Your task to perform on an android device: turn off picture-in-picture Image 0: 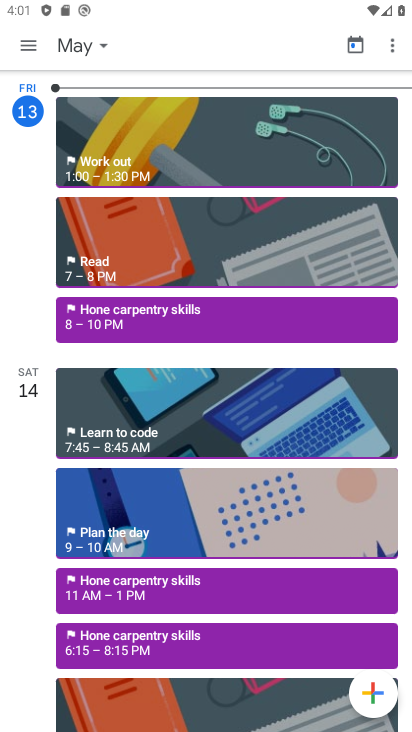
Step 0: press home button
Your task to perform on an android device: turn off picture-in-picture Image 1: 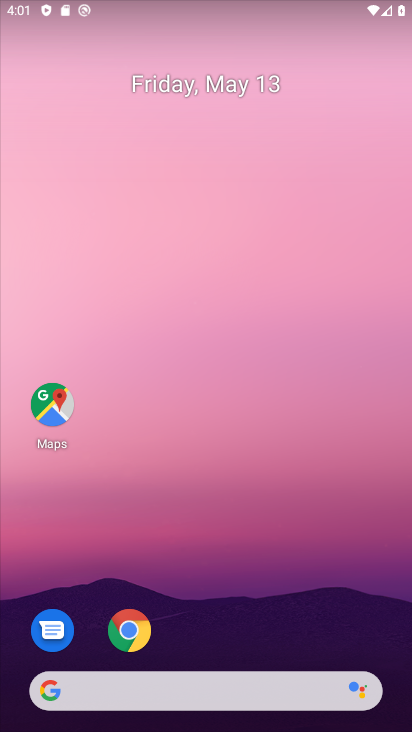
Step 1: drag from (212, 725) to (208, 221)
Your task to perform on an android device: turn off picture-in-picture Image 2: 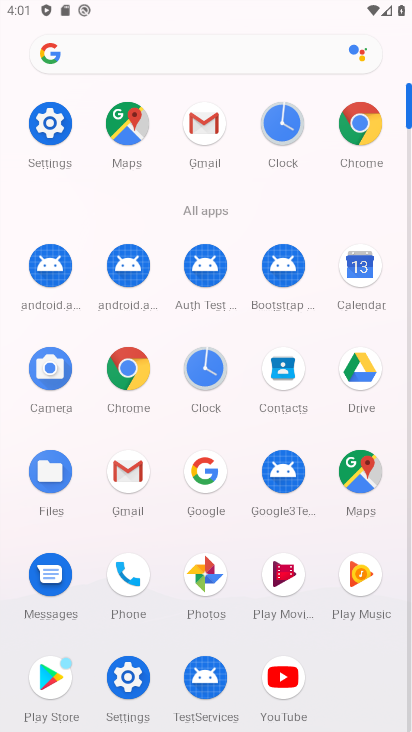
Step 2: click (51, 125)
Your task to perform on an android device: turn off picture-in-picture Image 3: 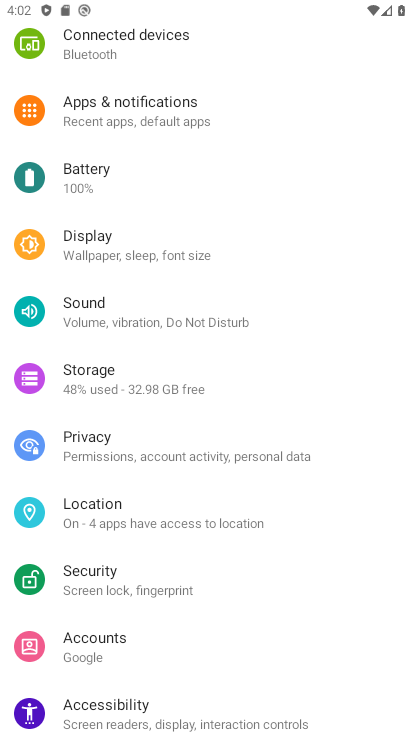
Step 3: click (144, 664)
Your task to perform on an android device: turn off picture-in-picture Image 4: 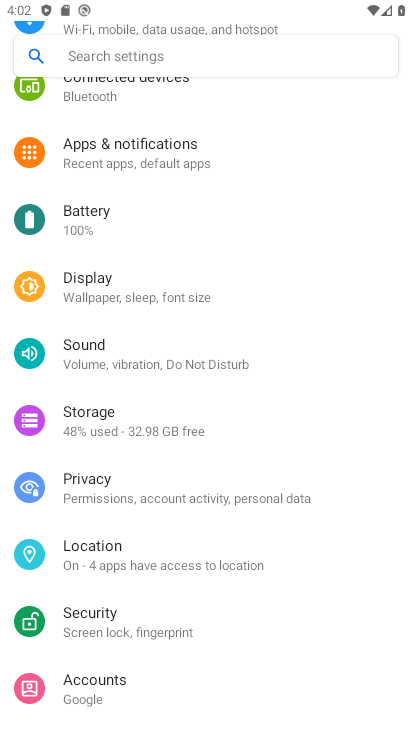
Step 4: drag from (202, 166) to (197, 595)
Your task to perform on an android device: turn off picture-in-picture Image 5: 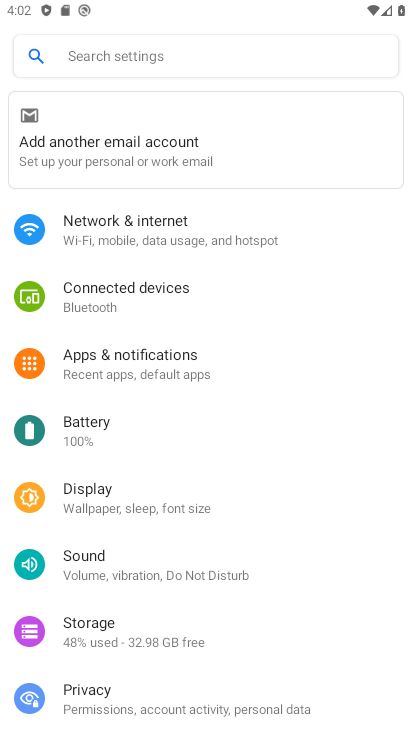
Step 5: click (137, 356)
Your task to perform on an android device: turn off picture-in-picture Image 6: 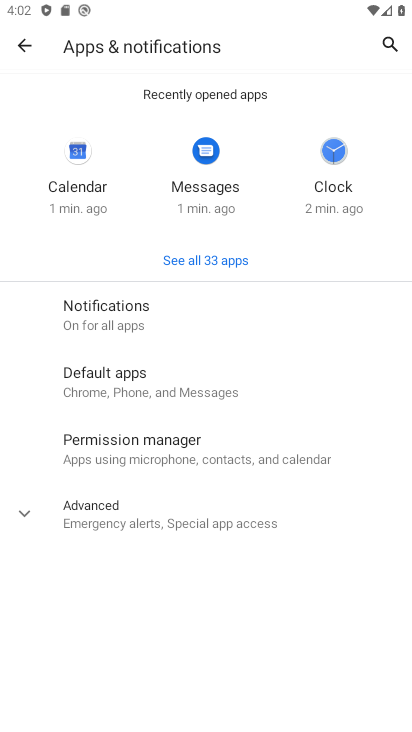
Step 6: click (75, 512)
Your task to perform on an android device: turn off picture-in-picture Image 7: 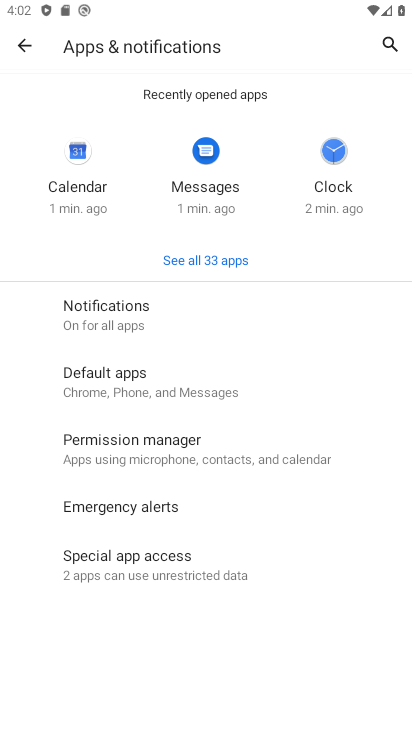
Step 7: click (135, 560)
Your task to perform on an android device: turn off picture-in-picture Image 8: 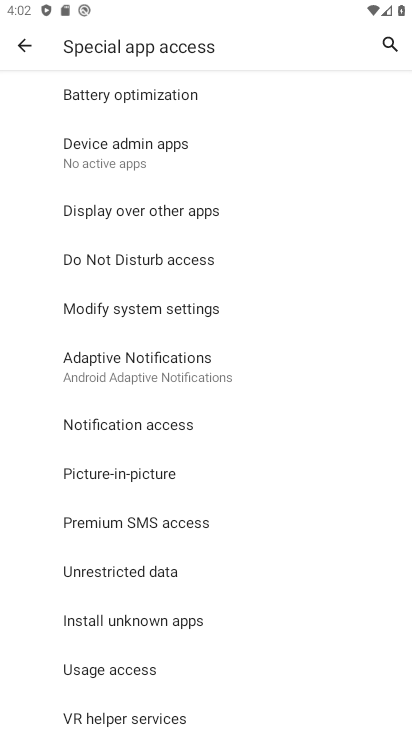
Step 8: click (147, 475)
Your task to perform on an android device: turn off picture-in-picture Image 9: 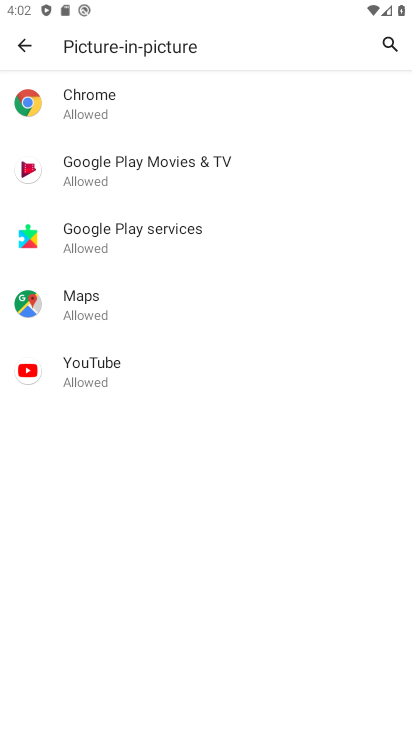
Step 9: click (82, 361)
Your task to perform on an android device: turn off picture-in-picture Image 10: 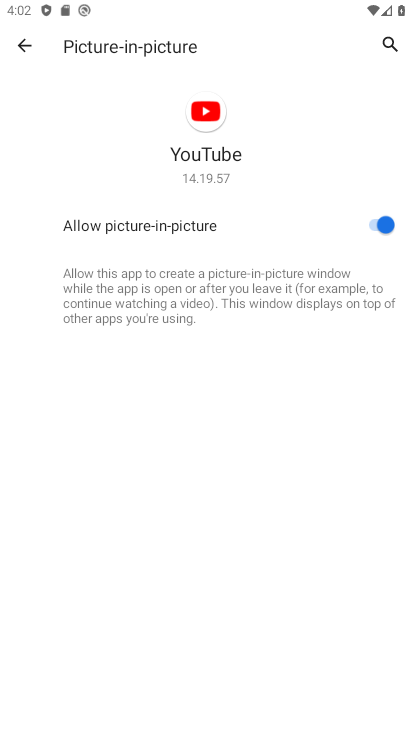
Step 10: click (376, 218)
Your task to perform on an android device: turn off picture-in-picture Image 11: 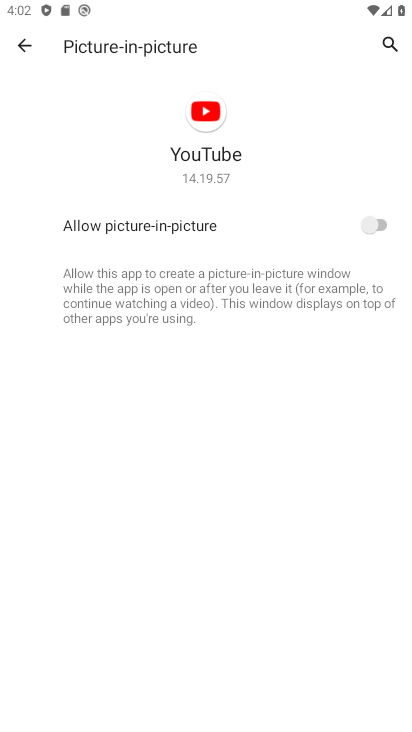
Step 11: task complete